Your task to perform on an android device: Turn on the flashlight Image 0: 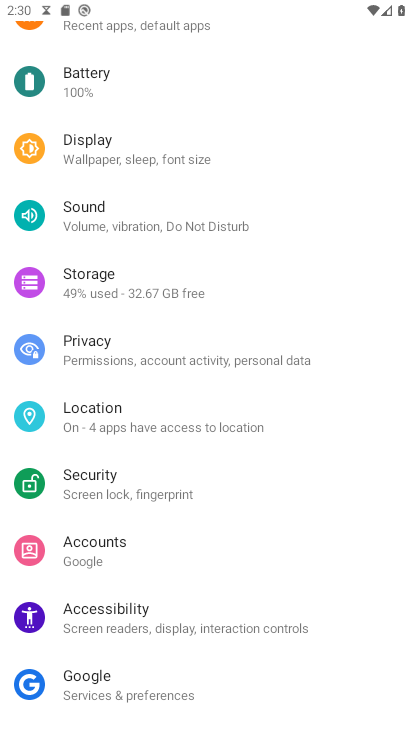
Step 0: drag from (308, 583) to (297, 77)
Your task to perform on an android device: Turn on the flashlight Image 1: 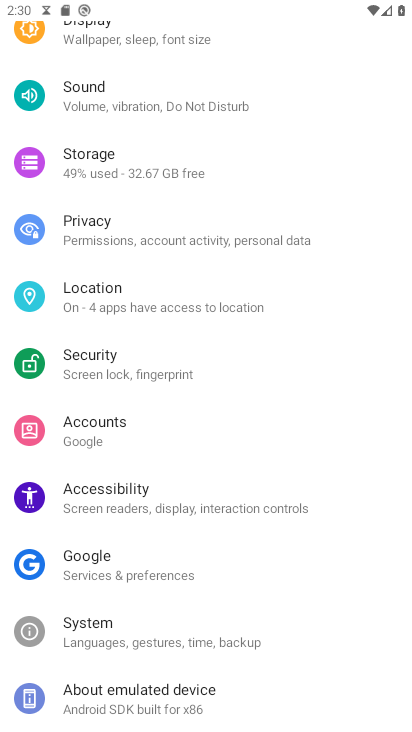
Step 1: task complete